Your task to perform on an android device: Open Chrome and go to the settings page Image 0: 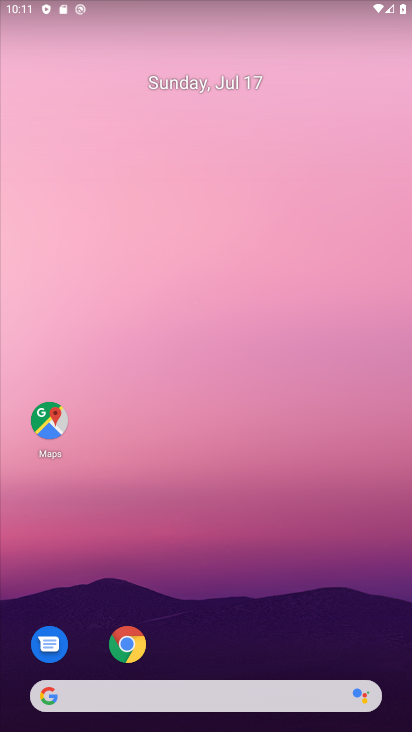
Step 0: drag from (322, 671) to (331, 218)
Your task to perform on an android device: Open Chrome and go to the settings page Image 1: 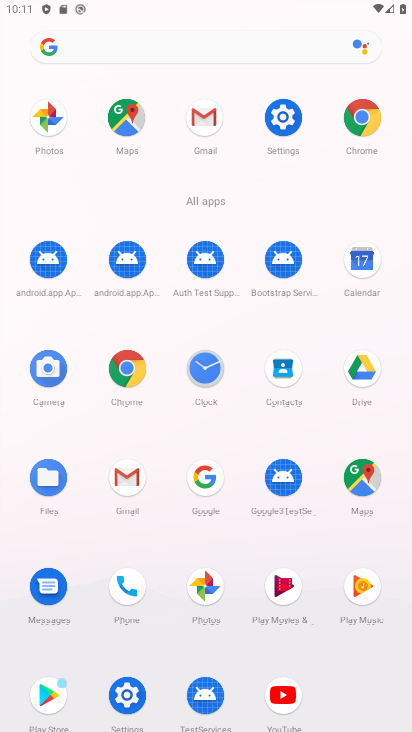
Step 1: click (364, 114)
Your task to perform on an android device: Open Chrome and go to the settings page Image 2: 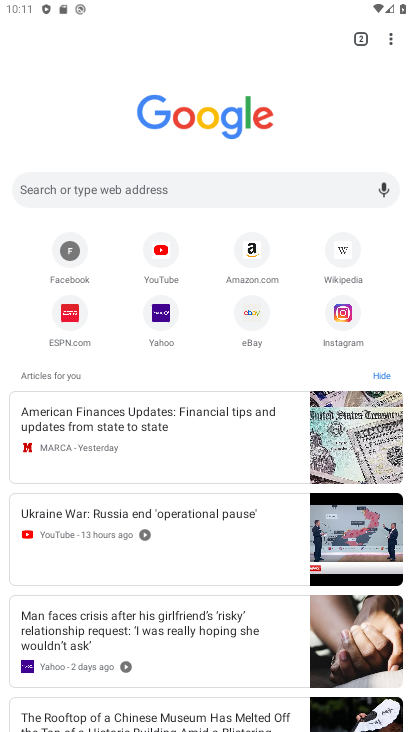
Step 2: task complete